Your task to perform on an android device: read, delete, or share a saved page in the chrome app Image 0: 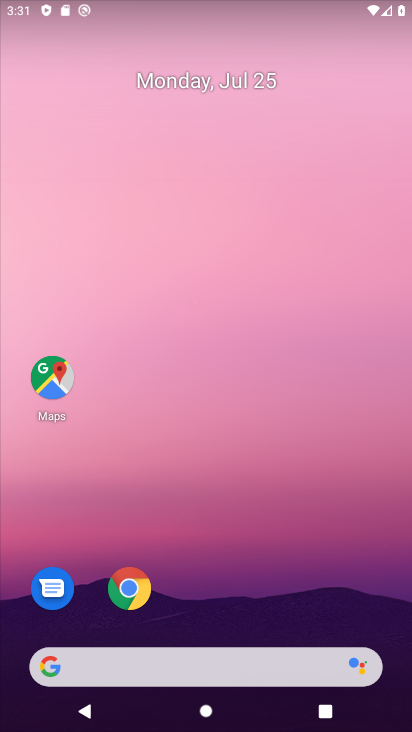
Step 0: click (196, 200)
Your task to perform on an android device: read, delete, or share a saved page in the chrome app Image 1: 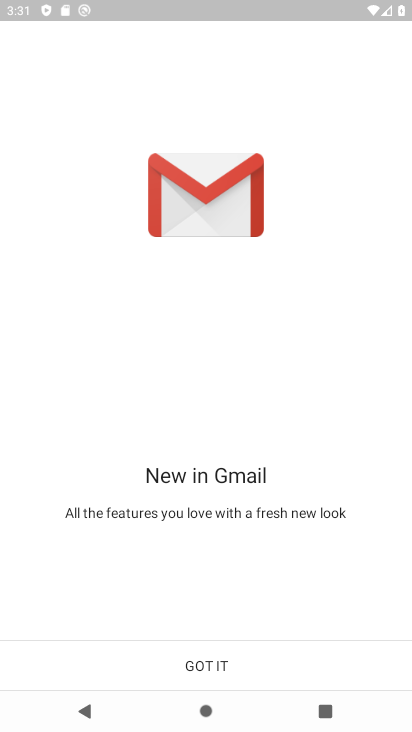
Step 1: click (208, 664)
Your task to perform on an android device: read, delete, or share a saved page in the chrome app Image 2: 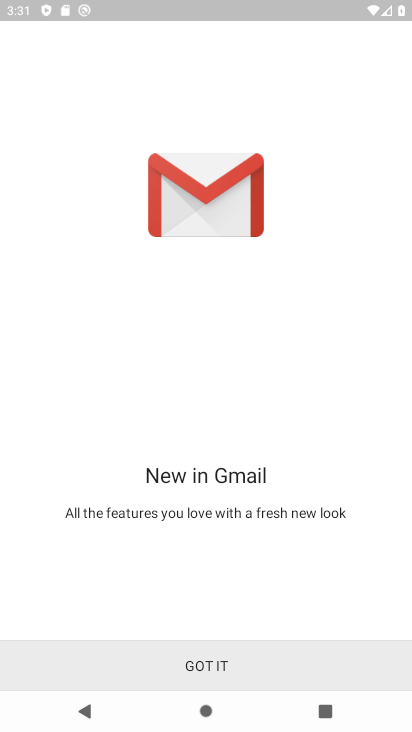
Step 2: click (209, 665)
Your task to perform on an android device: read, delete, or share a saved page in the chrome app Image 3: 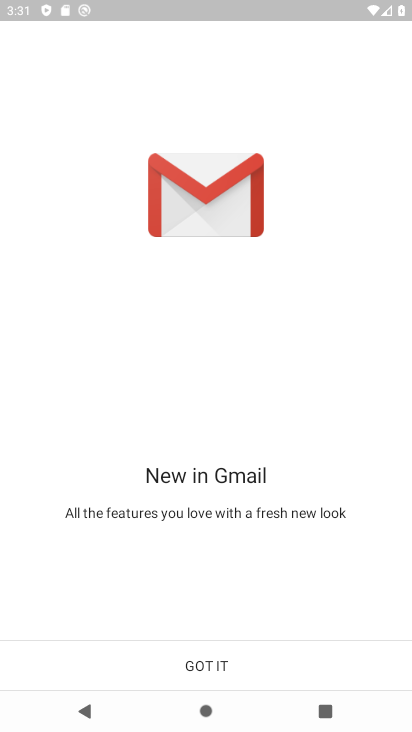
Step 3: click (210, 663)
Your task to perform on an android device: read, delete, or share a saved page in the chrome app Image 4: 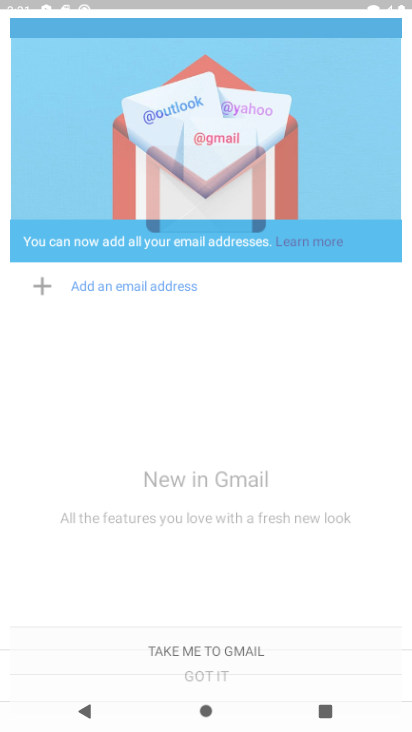
Step 4: click (210, 663)
Your task to perform on an android device: read, delete, or share a saved page in the chrome app Image 5: 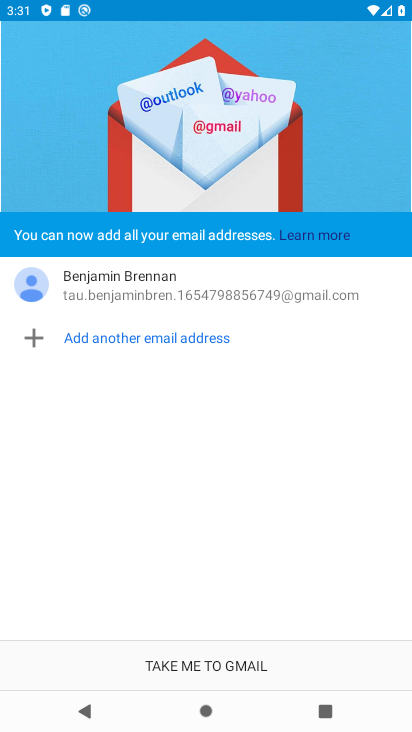
Step 5: click (207, 666)
Your task to perform on an android device: read, delete, or share a saved page in the chrome app Image 6: 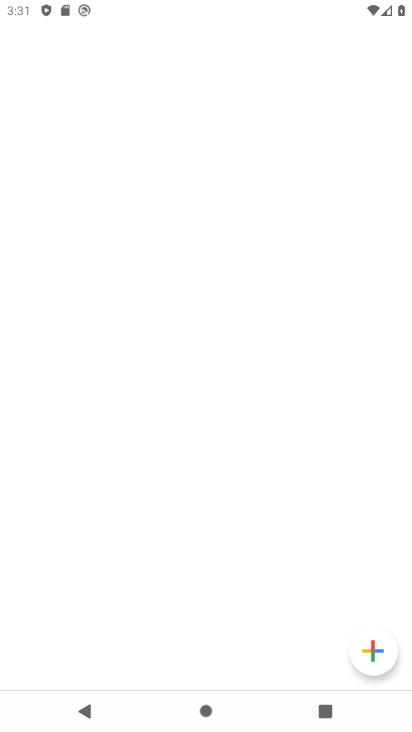
Step 6: click (206, 665)
Your task to perform on an android device: read, delete, or share a saved page in the chrome app Image 7: 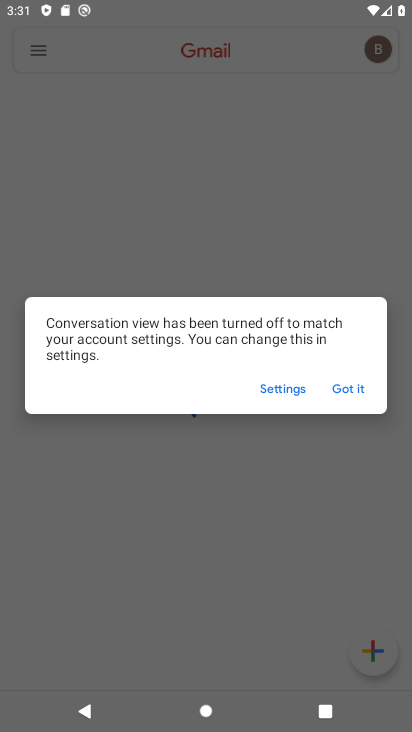
Step 7: click (282, 387)
Your task to perform on an android device: read, delete, or share a saved page in the chrome app Image 8: 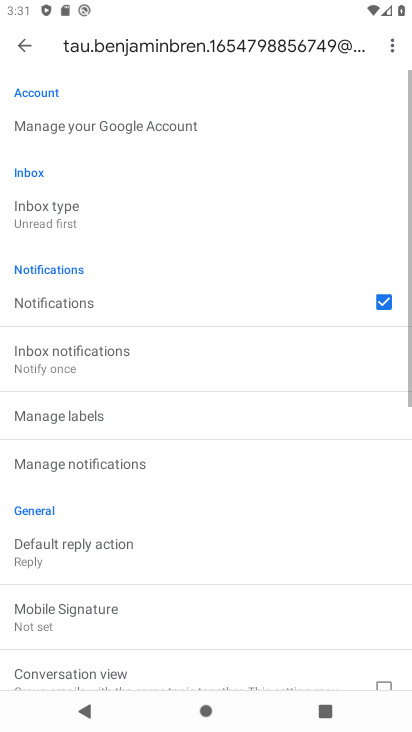
Step 8: press back button
Your task to perform on an android device: read, delete, or share a saved page in the chrome app Image 9: 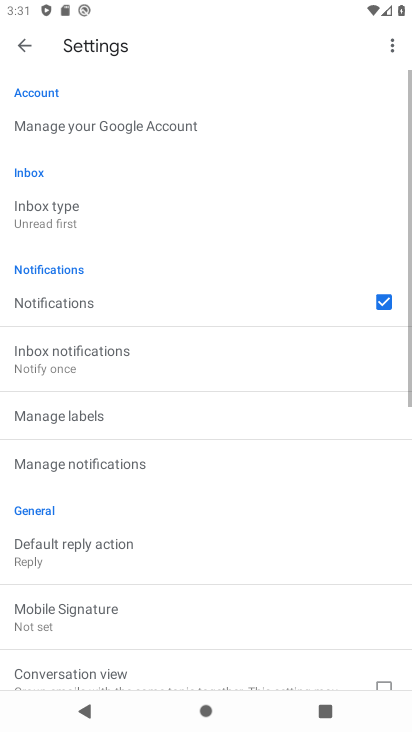
Step 9: press back button
Your task to perform on an android device: read, delete, or share a saved page in the chrome app Image 10: 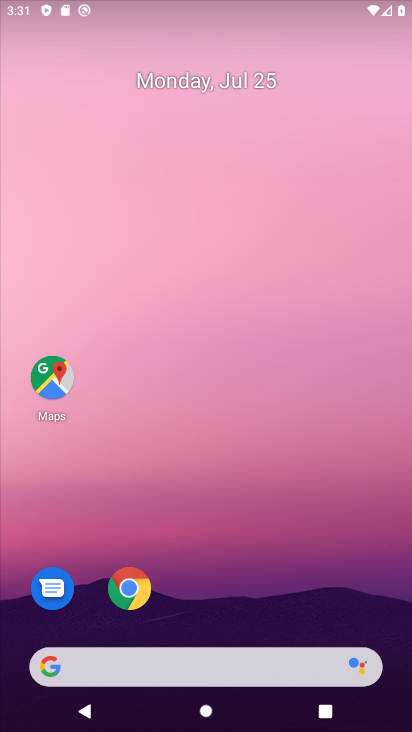
Step 10: drag from (268, 638) to (279, 180)
Your task to perform on an android device: read, delete, or share a saved page in the chrome app Image 11: 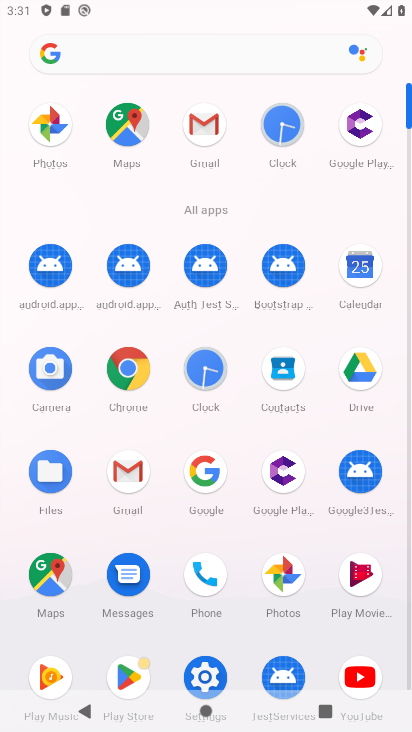
Step 11: click (132, 362)
Your task to perform on an android device: read, delete, or share a saved page in the chrome app Image 12: 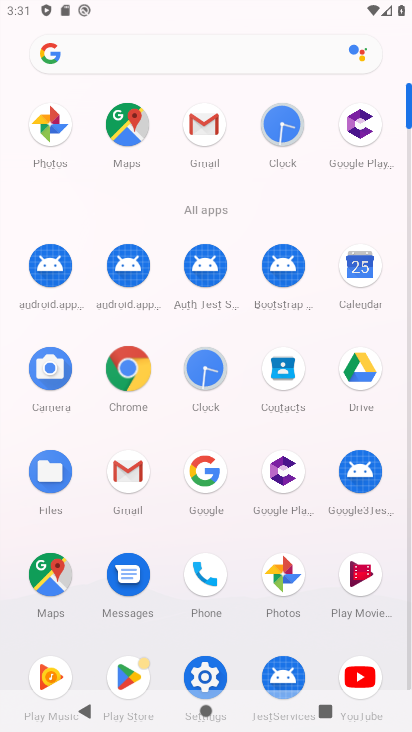
Step 12: click (132, 362)
Your task to perform on an android device: read, delete, or share a saved page in the chrome app Image 13: 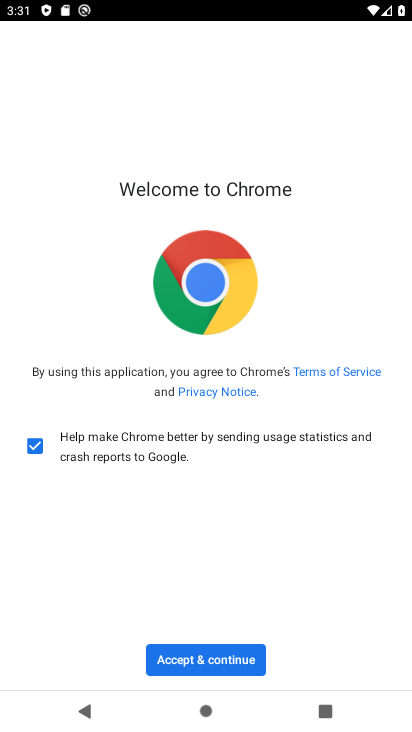
Step 13: click (227, 652)
Your task to perform on an android device: read, delete, or share a saved page in the chrome app Image 14: 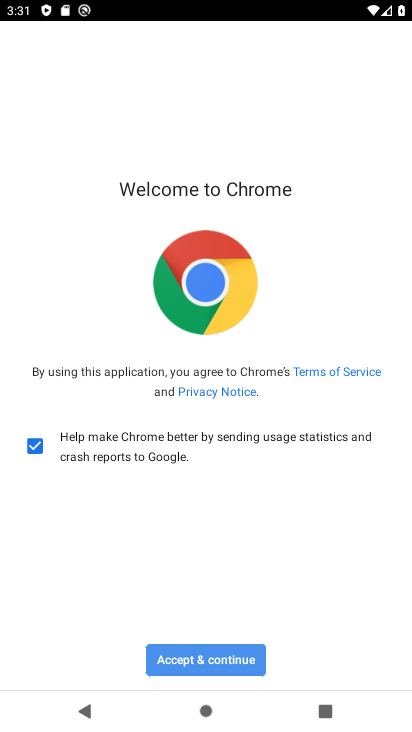
Step 14: click (224, 652)
Your task to perform on an android device: read, delete, or share a saved page in the chrome app Image 15: 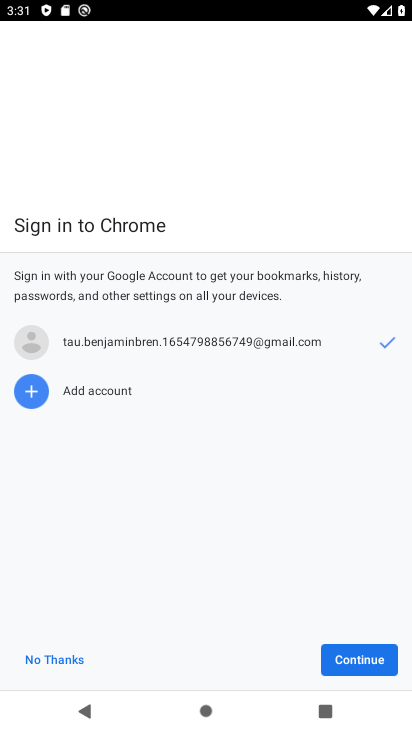
Step 15: click (223, 643)
Your task to perform on an android device: read, delete, or share a saved page in the chrome app Image 16: 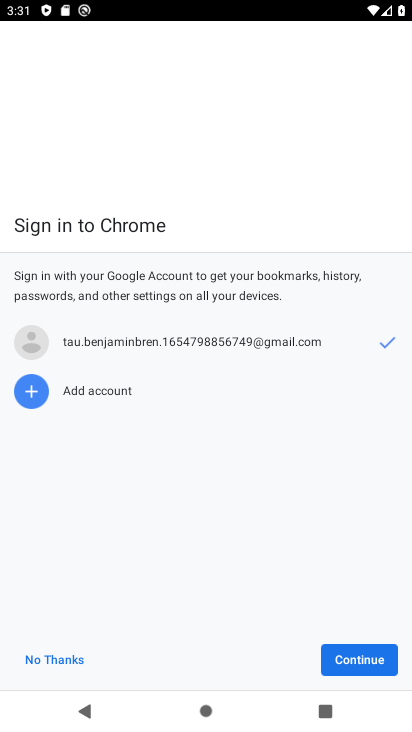
Step 16: click (30, 656)
Your task to perform on an android device: read, delete, or share a saved page in the chrome app Image 17: 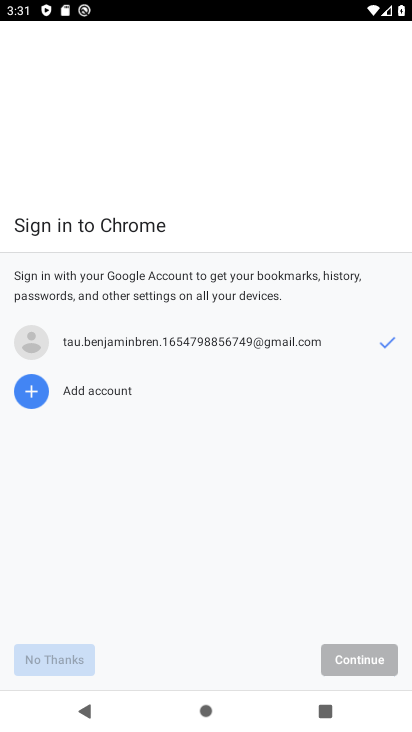
Step 17: click (39, 662)
Your task to perform on an android device: read, delete, or share a saved page in the chrome app Image 18: 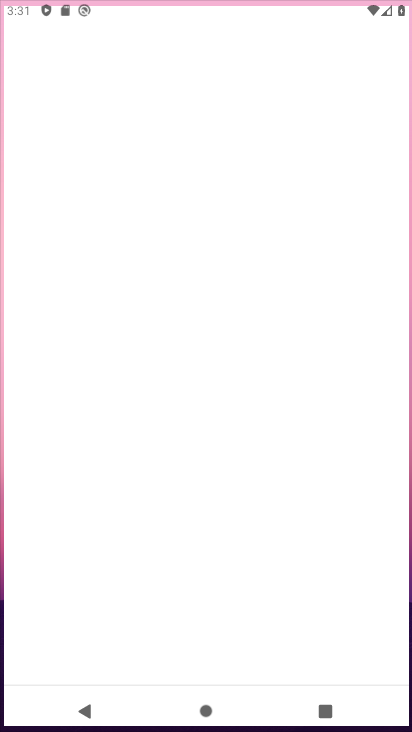
Step 18: click (39, 661)
Your task to perform on an android device: read, delete, or share a saved page in the chrome app Image 19: 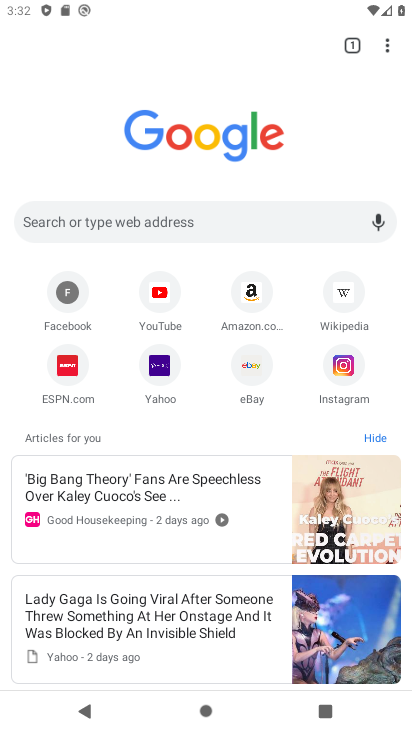
Step 19: click (386, 38)
Your task to perform on an android device: read, delete, or share a saved page in the chrome app Image 20: 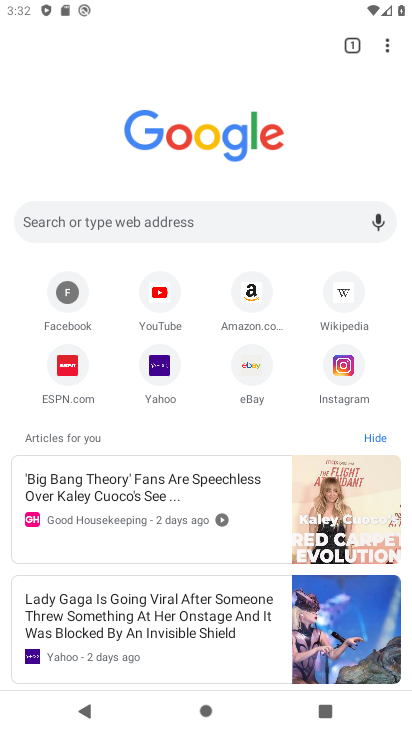
Step 20: drag from (385, 51) to (229, 293)
Your task to perform on an android device: read, delete, or share a saved page in the chrome app Image 21: 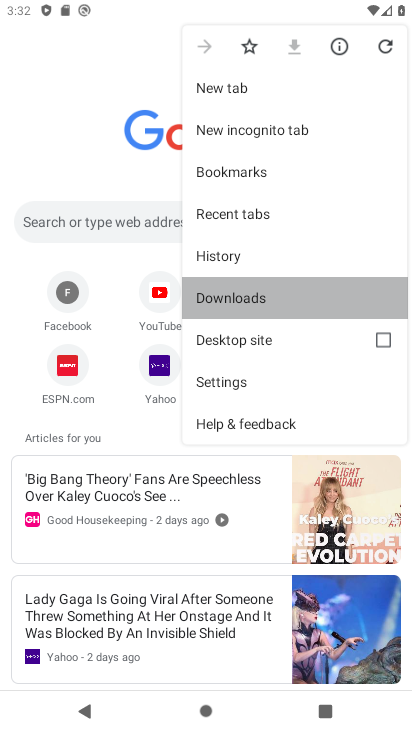
Step 21: click (229, 291)
Your task to perform on an android device: read, delete, or share a saved page in the chrome app Image 22: 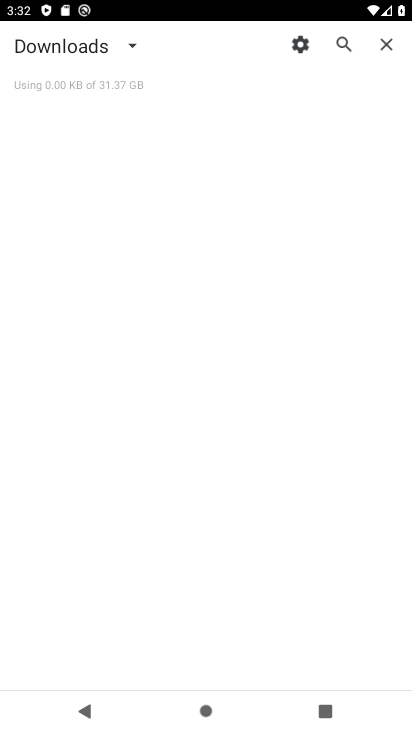
Step 22: click (133, 39)
Your task to perform on an android device: read, delete, or share a saved page in the chrome app Image 23: 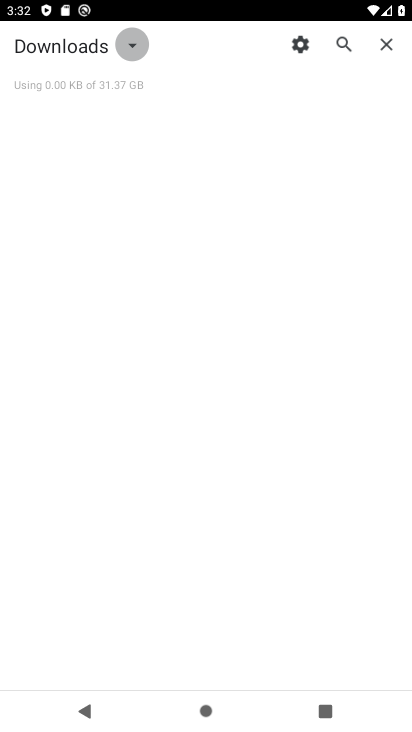
Step 23: click (133, 39)
Your task to perform on an android device: read, delete, or share a saved page in the chrome app Image 24: 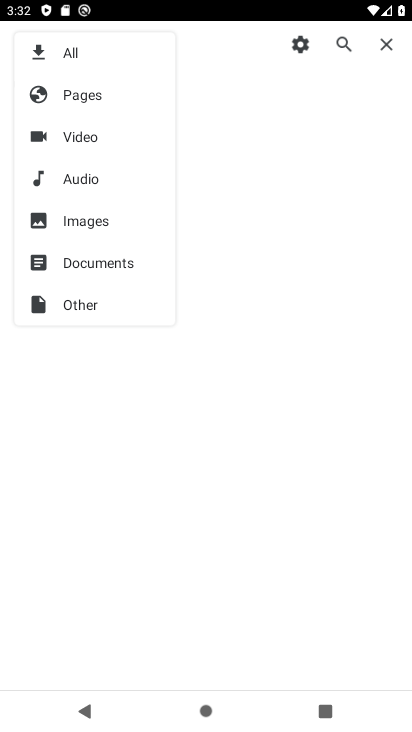
Step 24: click (81, 128)
Your task to perform on an android device: read, delete, or share a saved page in the chrome app Image 25: 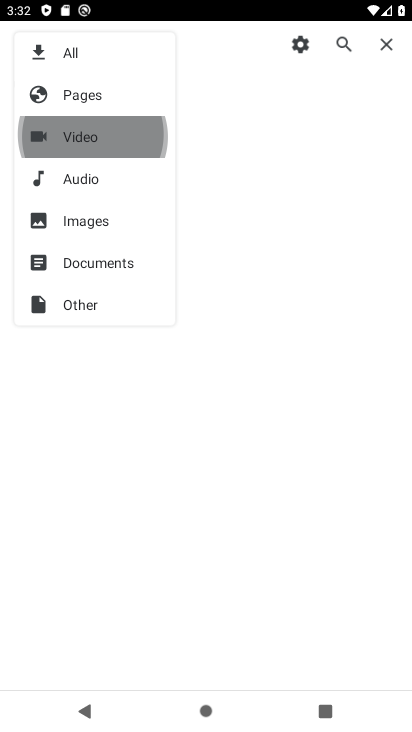
Step 25: click (81, 128)
Your task to perform on an android device: read, delete, or share a saved page in the chrome app Image 26: 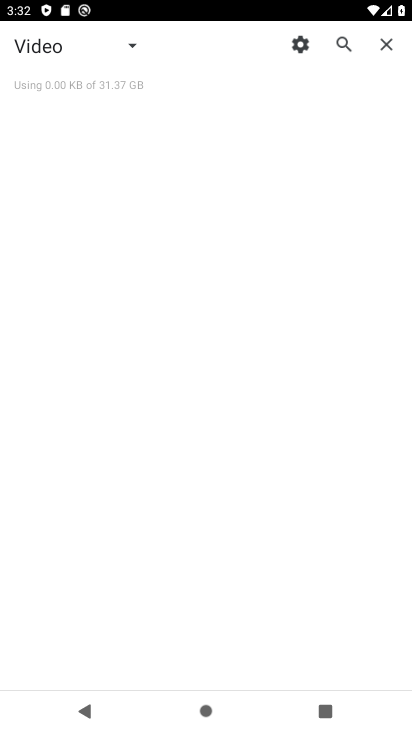
Step 26: click (83, 128)
Your task to perform on an android device: read, delete, or share a saved page in the chrome app Image 27: 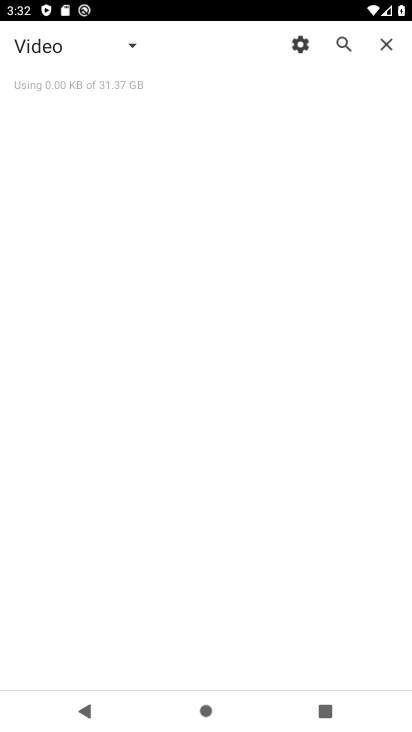
Step 27: task complete